Your task to perform on an android device: make emails show in primary in the gmail app Image 0: 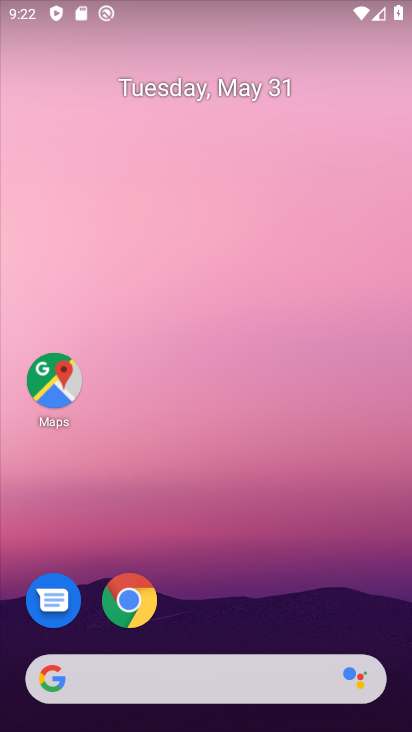
Step 0: drag from (194, 632) to (195, 292)
Your task to perform on an android device: make emails show in primary in the gmail app Image 1: 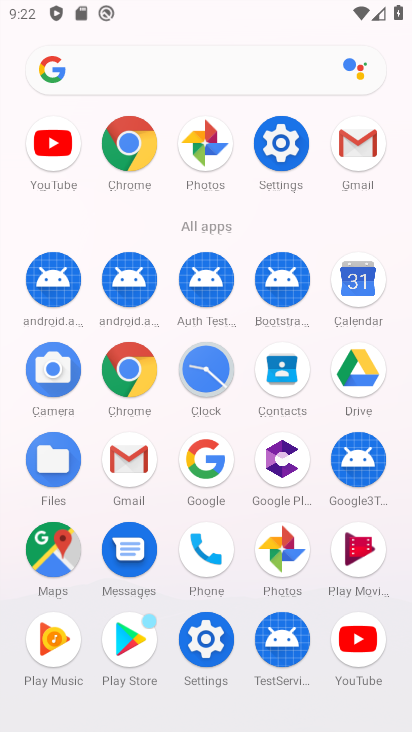
Step 1: click (377, 156)
Your task to perform on an android device: make emails show in primary in the gmail app Image 2: 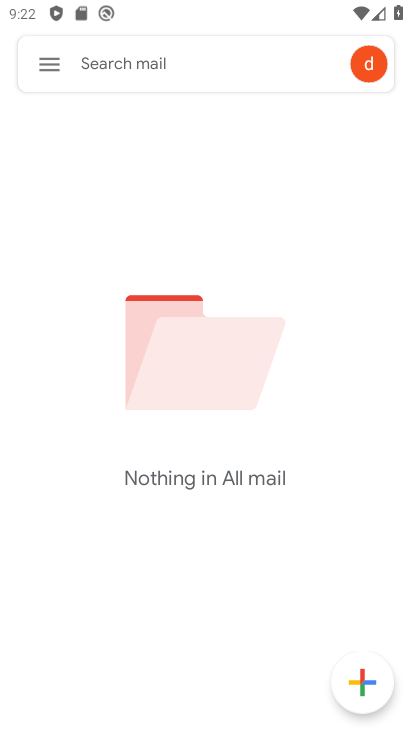
Step 2: click (48, 65)
Your task to perform on an android device: make emails show in primary in the gmail app Image 3: 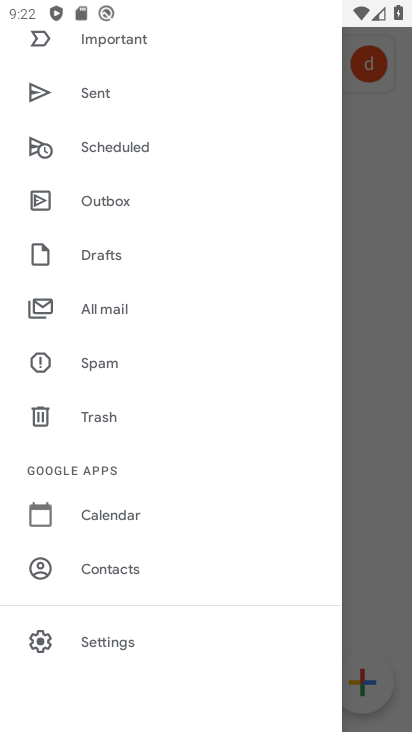
Step 3: drag from (116, 562) to (113, 251)
Your task to perform on an android device: make emails show in primary in the gmail app Image 4: 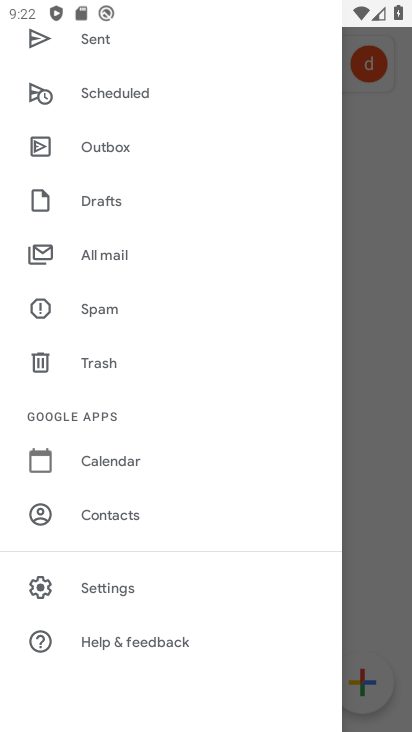
Step 4: click (101, 592)
Your task to perform on an android device: make emails show in primary in the gmail app Image 5: 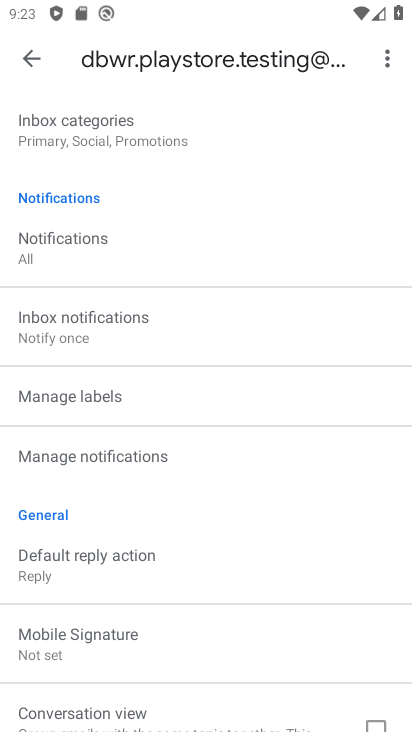
Step 5: task complete